Your task to perform on an android device: Go to network settings Image 0: 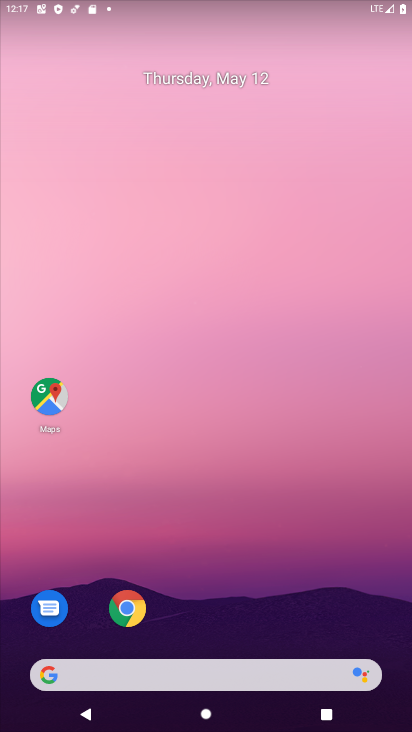
Step 0: drag from (322, 635) to (280, 1)
Your task to perform on an android device: Go to network settings Image 1: 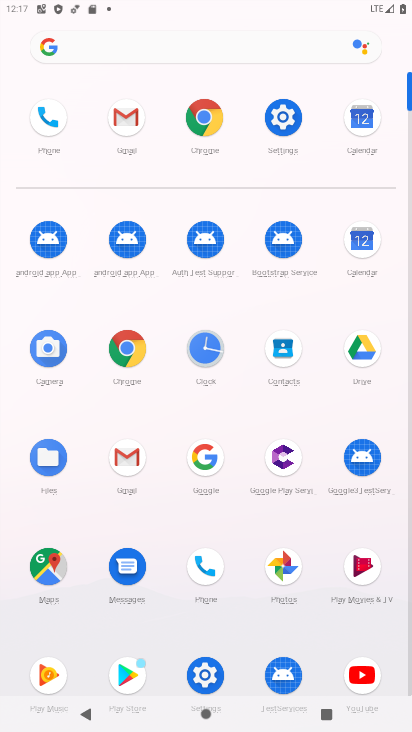
Step 1: click (280, 118)
Your task to perform on an android device: Go to network settings Image 2: 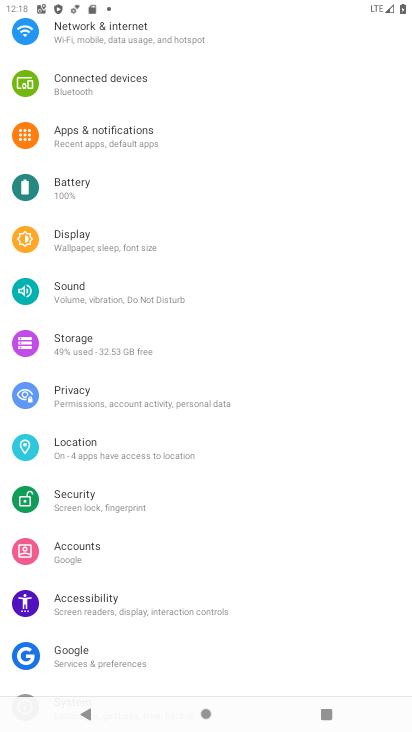
Step 2: click (112, 34)
Your task to perform on an android device: Go to network settings Image 3: 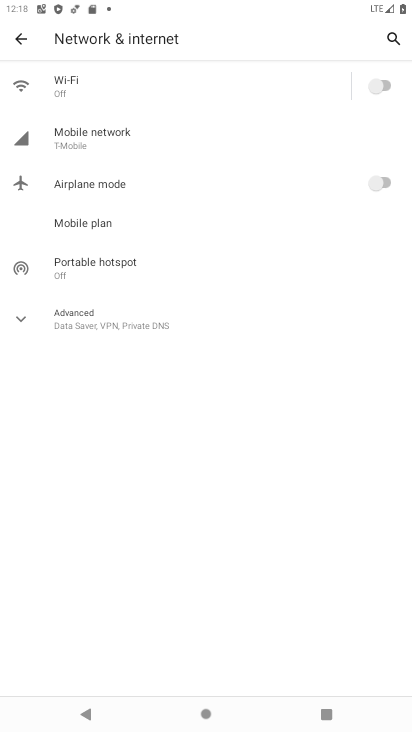
Step 3: click (67, 138)
Your task to perform on an android device: Go to network settings Image 4: 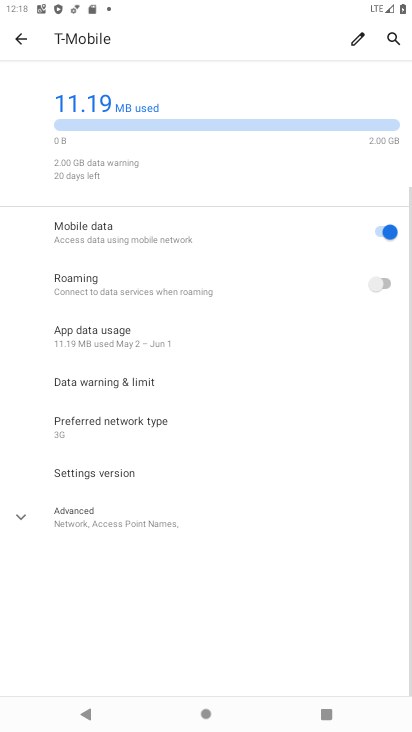
Step 4: click (21, 528)
Your task to perform on an android device: Go to network settings Image 5: 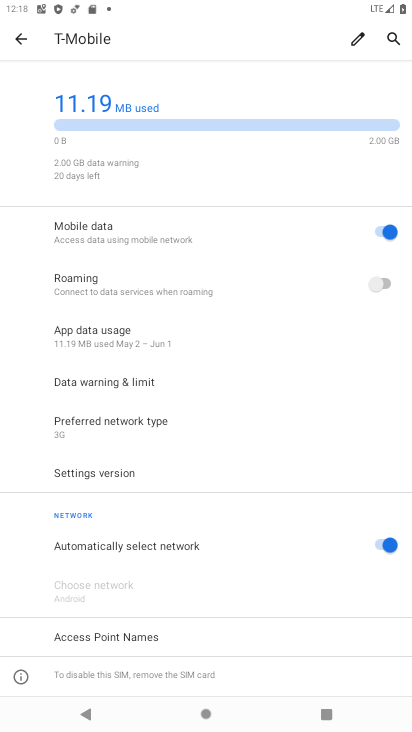
Step 5: task complete